Your task to perform on an android device: turn on javascript in the chrome app Image 0: 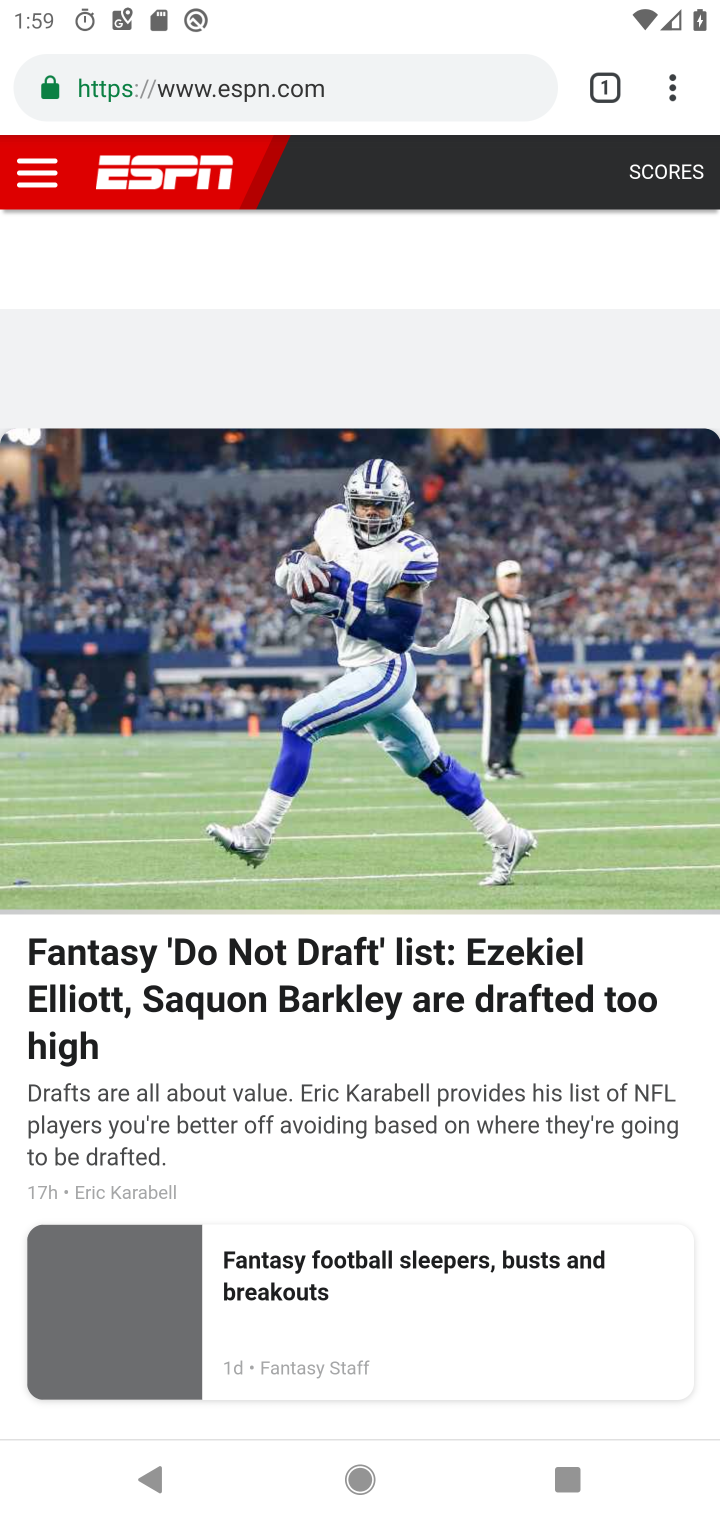
Step 0: press home button
Your task to perform on an android device: turn on javascript in the chrome app Image 1: 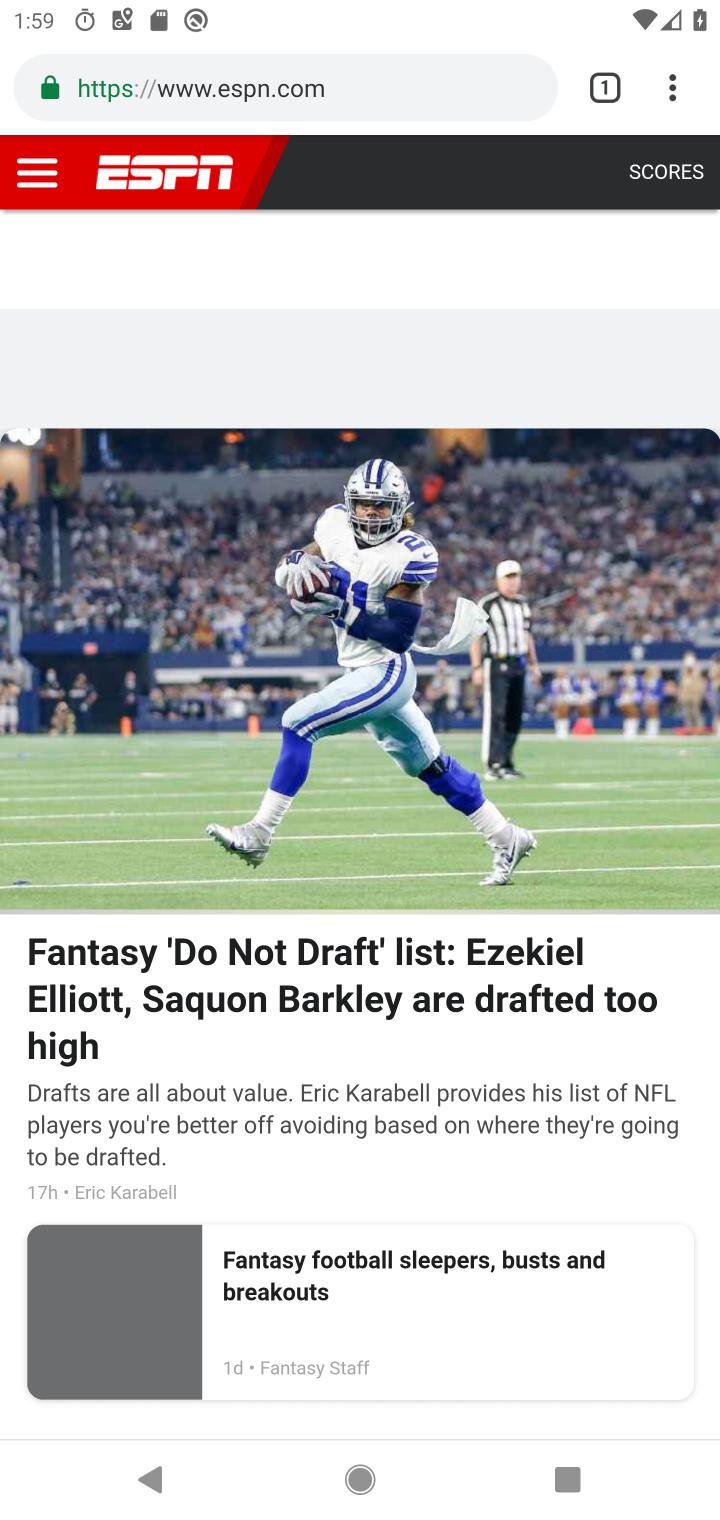
Step 1: press home button
Your task to perform on an android device: turn on javascript in the chrome app Image 2: 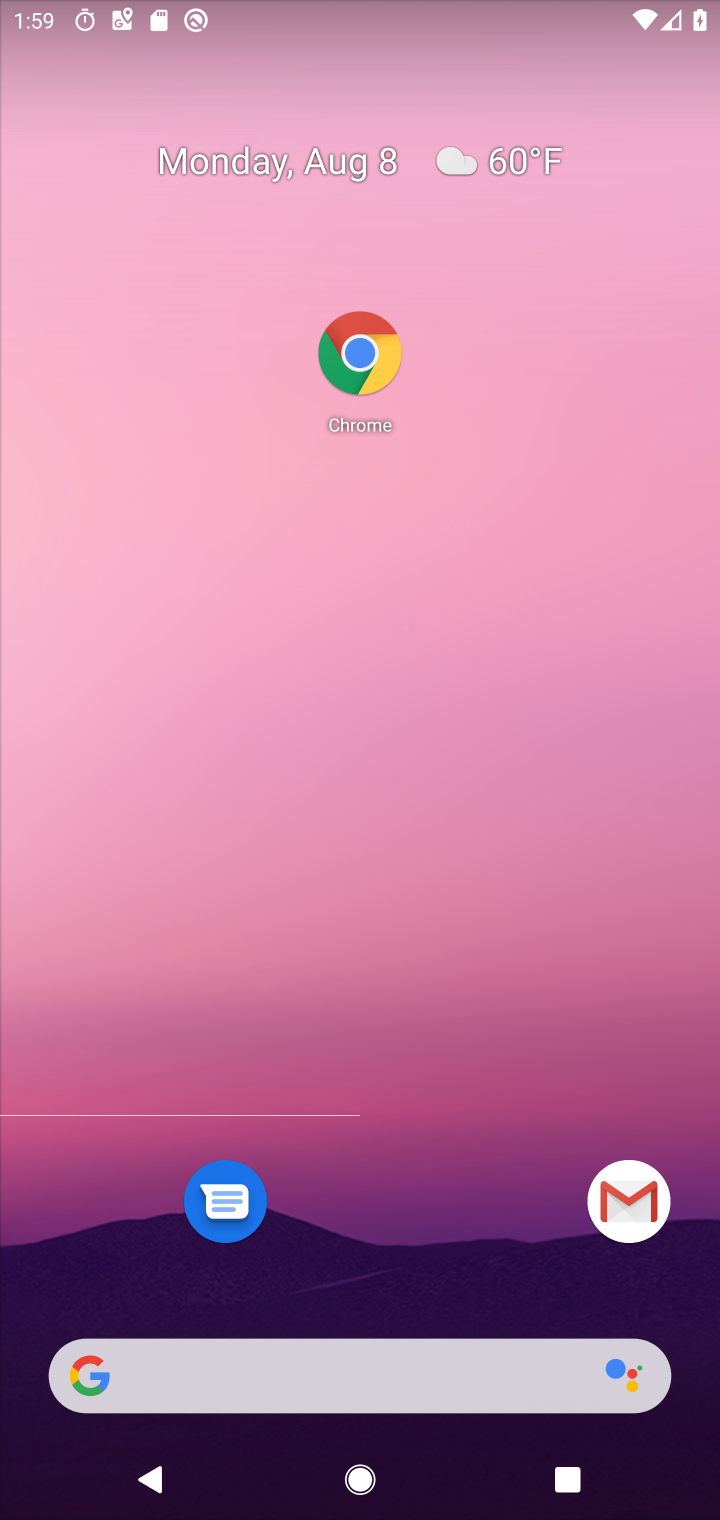
Step 2: click (340, 364)
Your task to perform on an android device: turn on javascript in the chrome app Image 3: 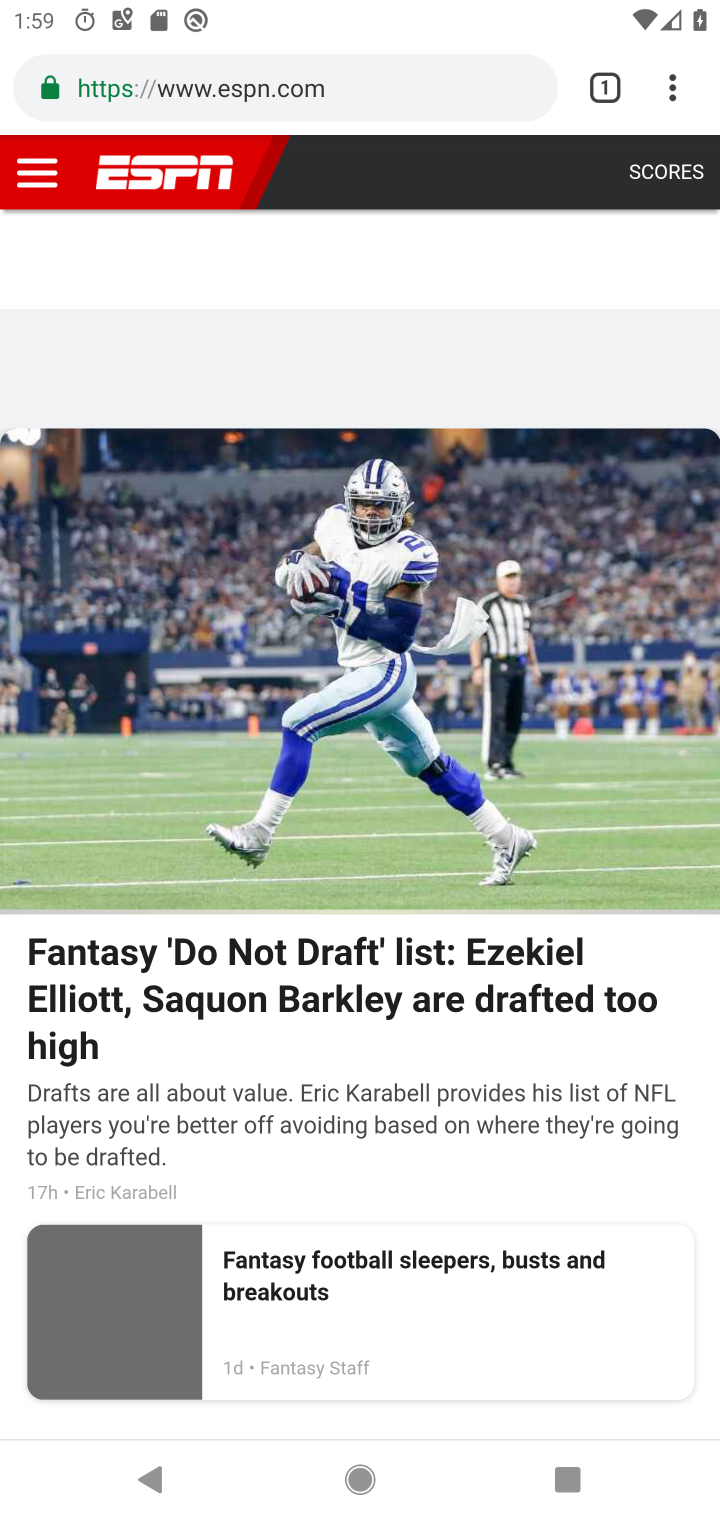
Step 3: click (656, 90)
Your task to perform on an android device: turn on javascript in the chrome app Image 4: 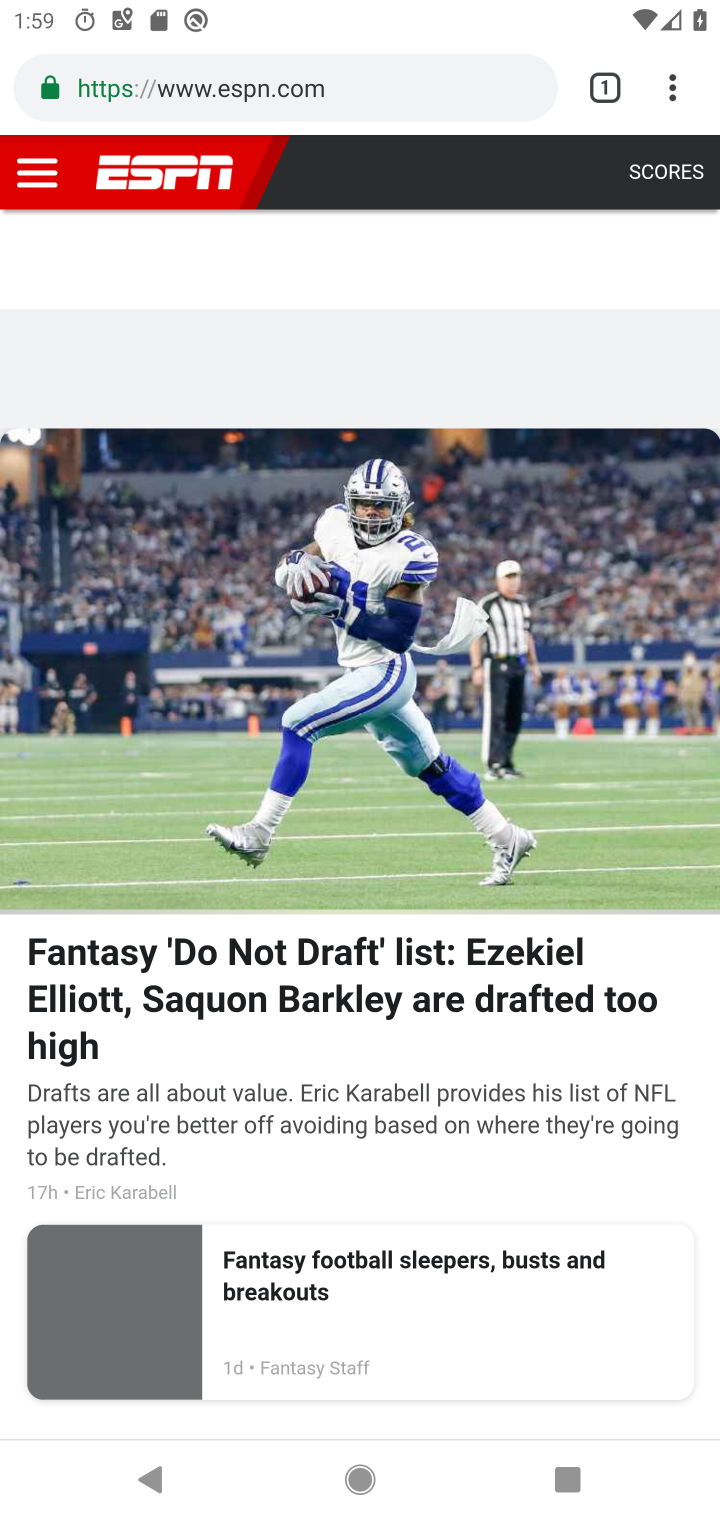
Step 4: click (670, 87)
Your task to perform on an android device: turn on javascript in the chrome app Image 5: 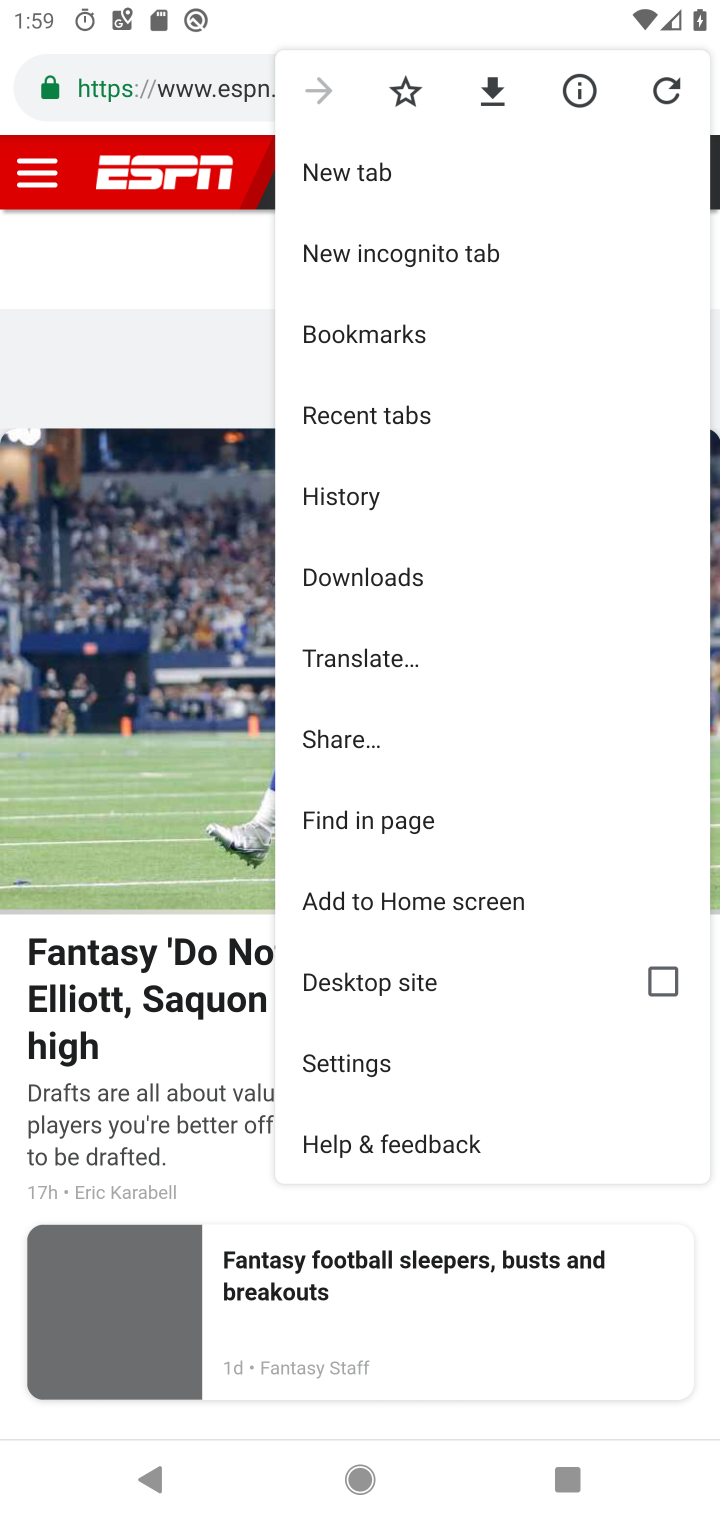
Step 5: click (362, 1072)
Your task to perform on an android device: turn on javascript in the chrome app Image 6: 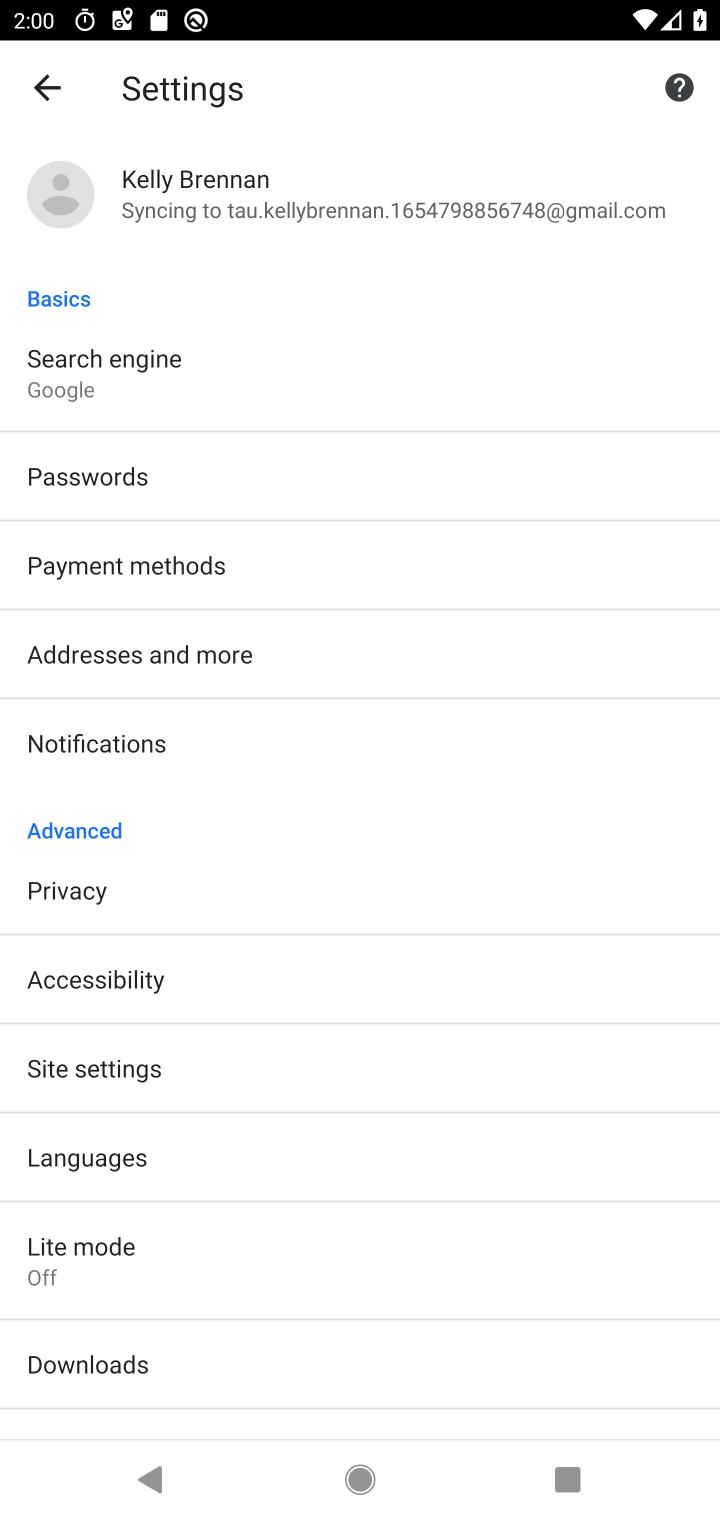
Step 6: click (125, 1060)
Your task to perform on an android device: turn on javascript in the chrome app Image 7: 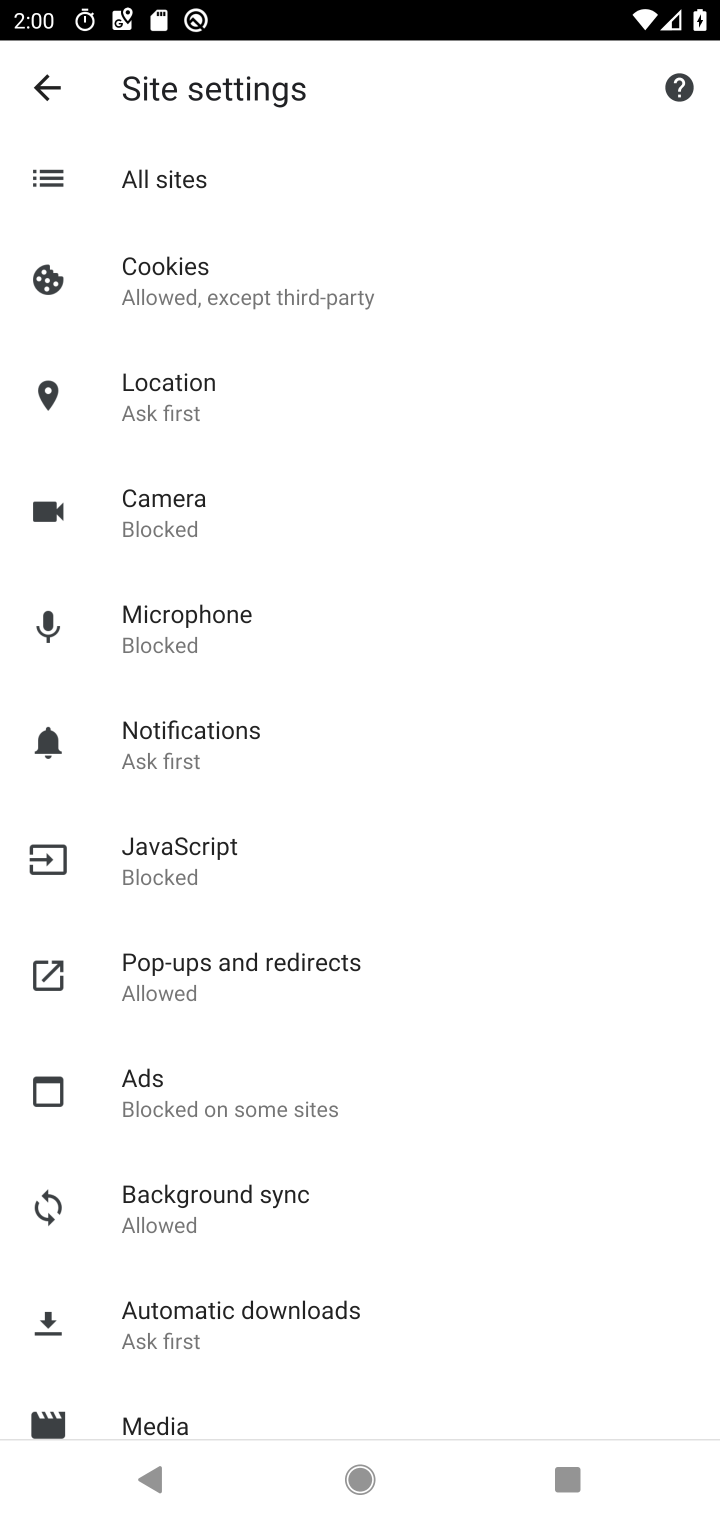
Step 7: click (203, 874)
Your task to perform on an android device: turn on javascript in the chrome app Image 8: 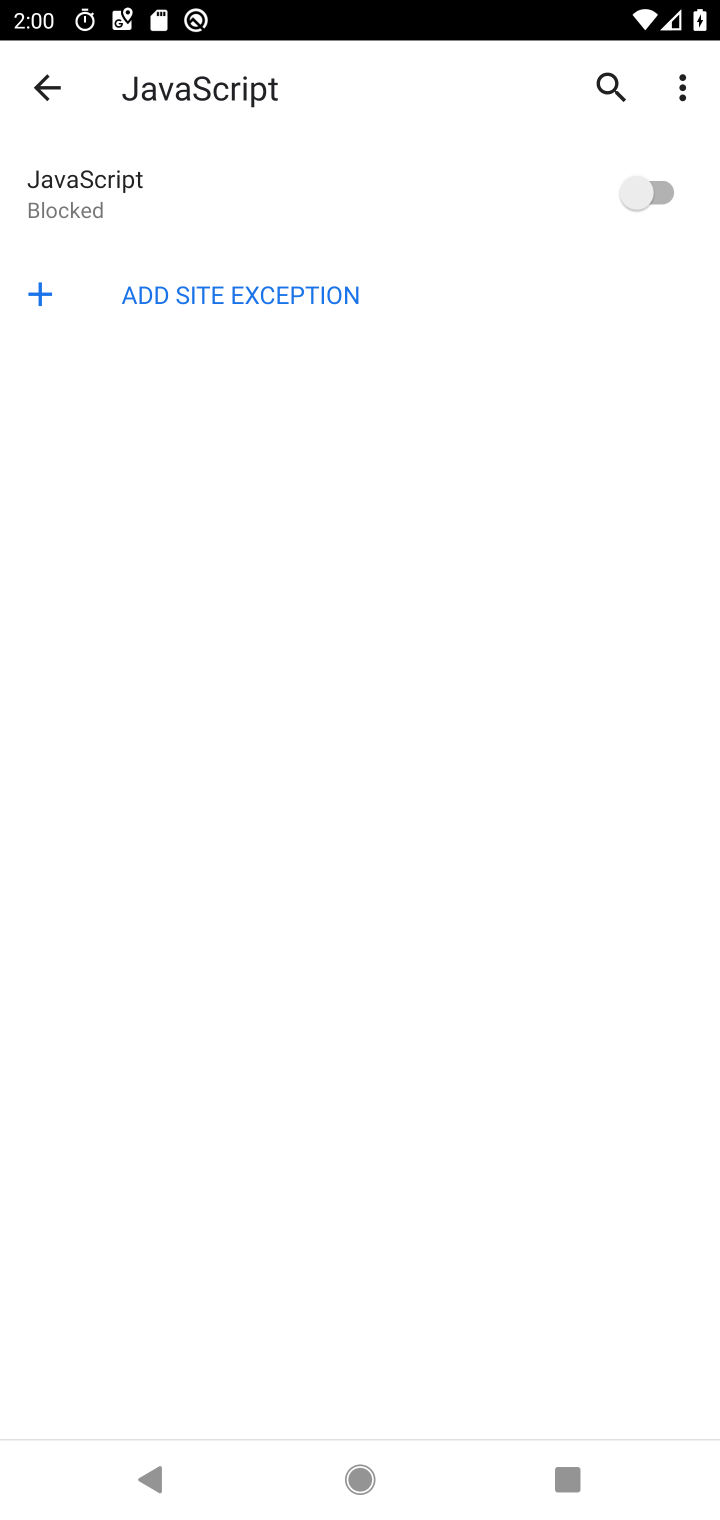
Step 8: click (648, 207)
Your task to perform on an android device: turn on javascript in the chrome app Image 9: 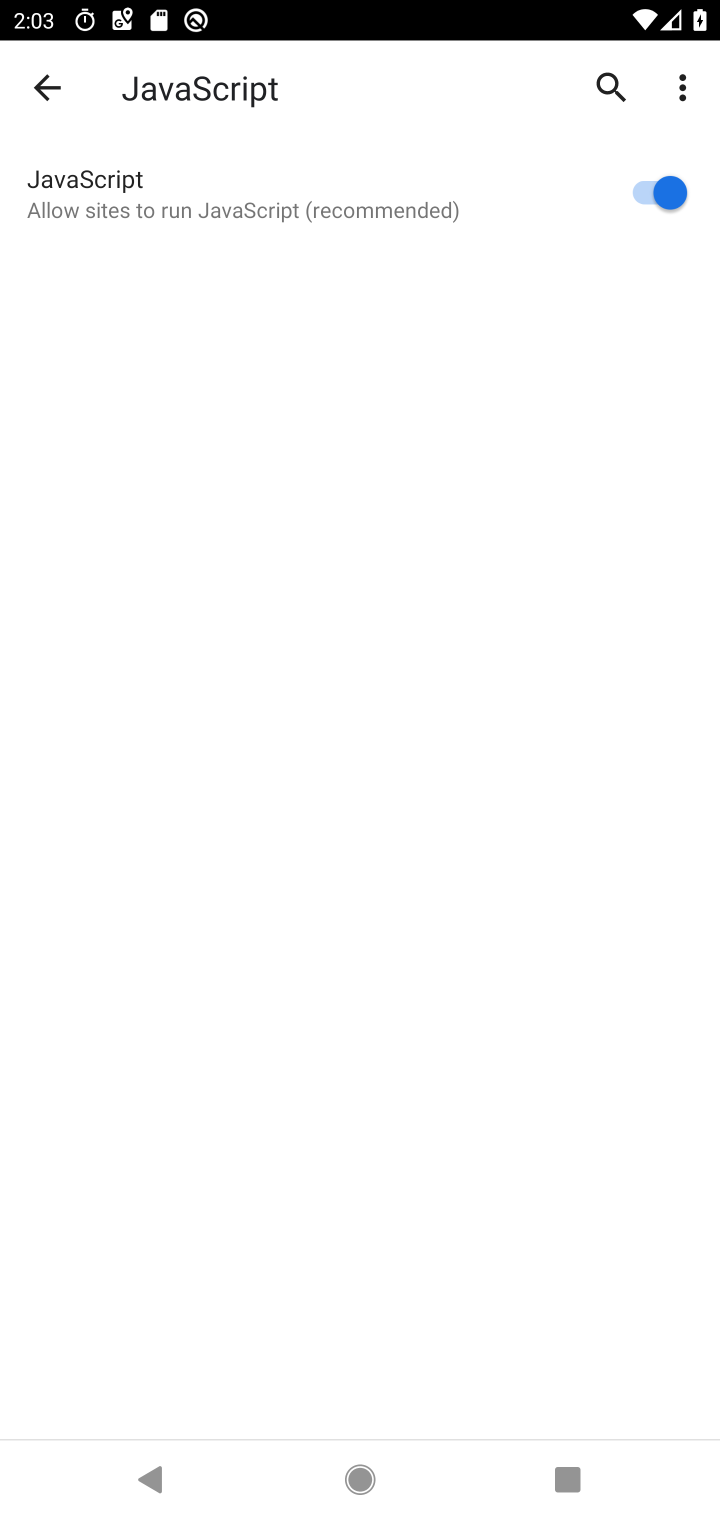
Step 9: task complete